Your task to perform on an android device: Open Google Chrome and click the shortcut for Amazon.com Image 0: 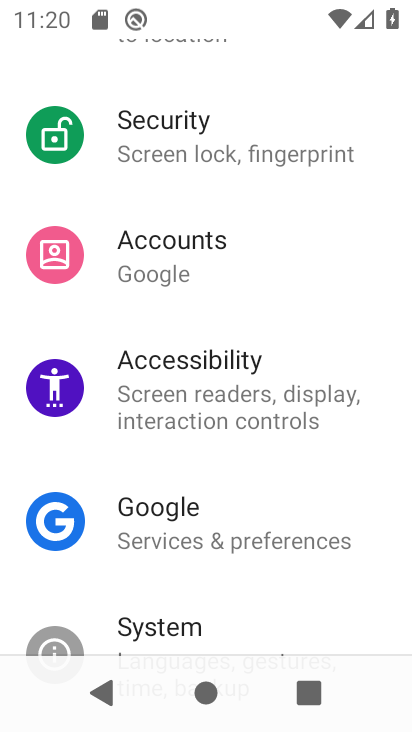
Step 0: press home button
Your task to perform on an android device: Open Google Chrome and click the shortcut for Amazon.com Image 1: 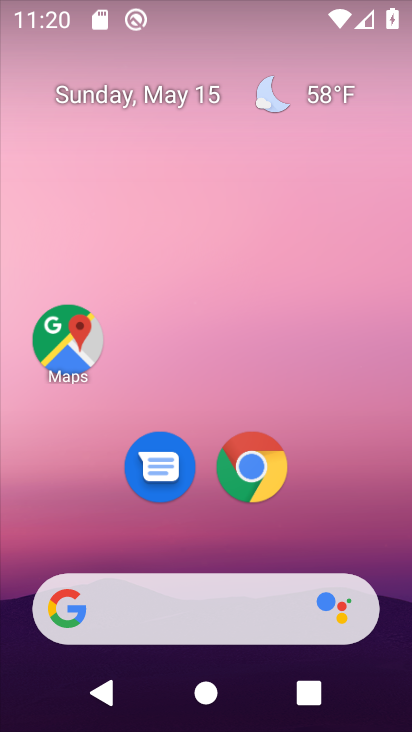
Step 1: click (247, 460)
Your task to perform on an android device: Open Google Chrome and click the shortcut for Amazon.com Image 2: 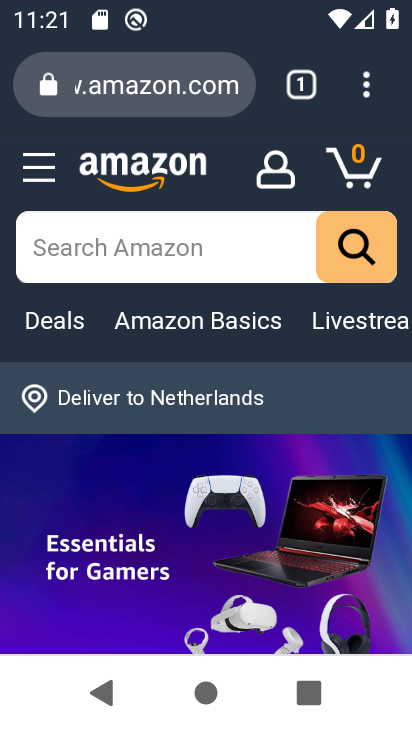
Step 2: task complete